Your task to perform on an android device: change timer sound Image 0: 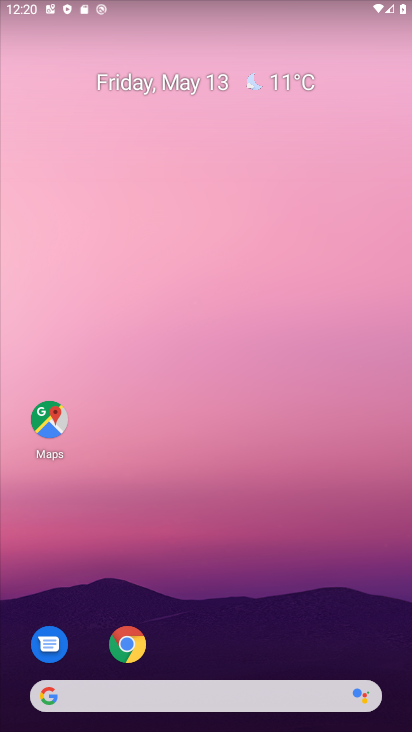
Step 0: drag from (203, 723) to (202, 109)
Your task to perform on an android device: change timer sound Image 1: 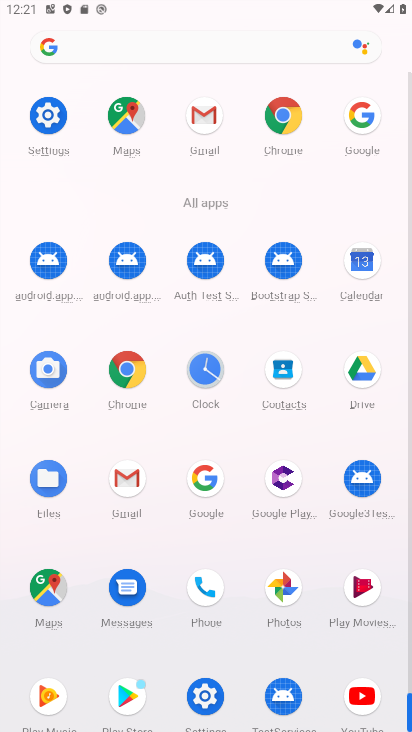
Step 1: click (204, 374)
Your task to perform on an android device: change timer sound Image 2: 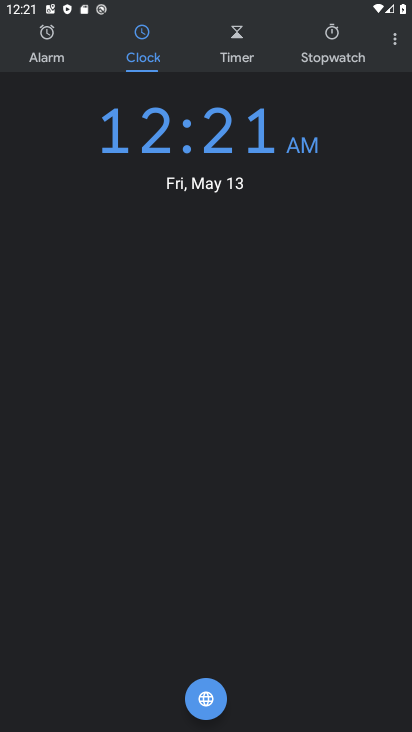
Step 2: click (395, 42)
Your task to perform on an android device: change timer sound Image 3: 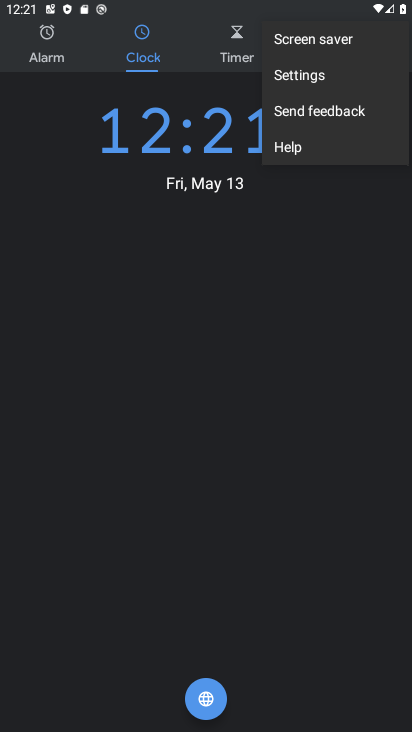
Step 3: click (311, 75)
Your task to perform on an android device: change timer sound Image 4: 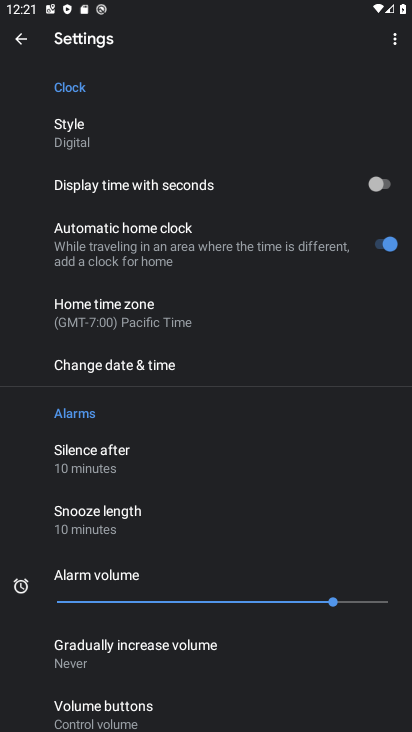
Step 4: drag from (153, 581) to (156, 301)
Your task to perform on an android device: change timer sound Image 5: 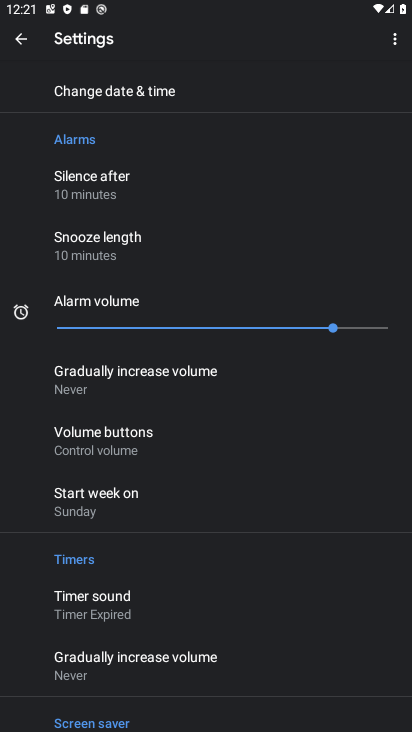
Step 5: click (96, 600)
Your task to perform on an android device: change timer sound Image 6: 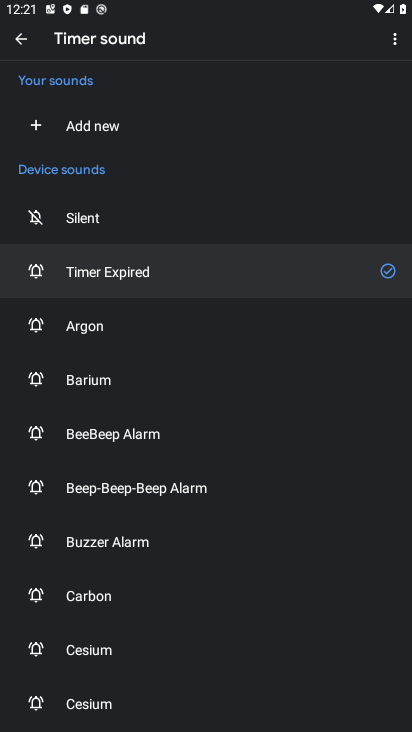
Step 6: click (101, 546)
Your task to perform on an android device: change timer sound Image 7: 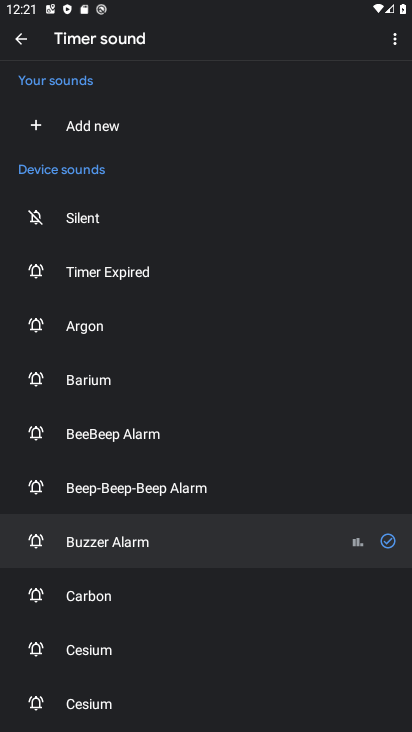
Step 7: task complete